Your task to perform on an android device: visit the assistant section in the google photos Image 0: 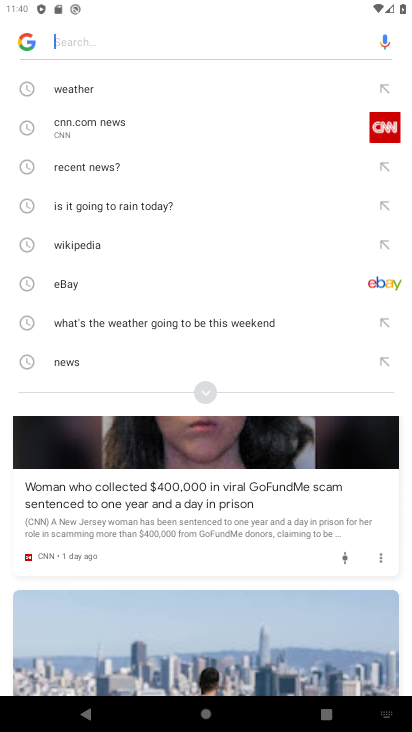
Step 0: press home button
Your task to perform on an android device: visit the assistant section in the google photos Image 1: 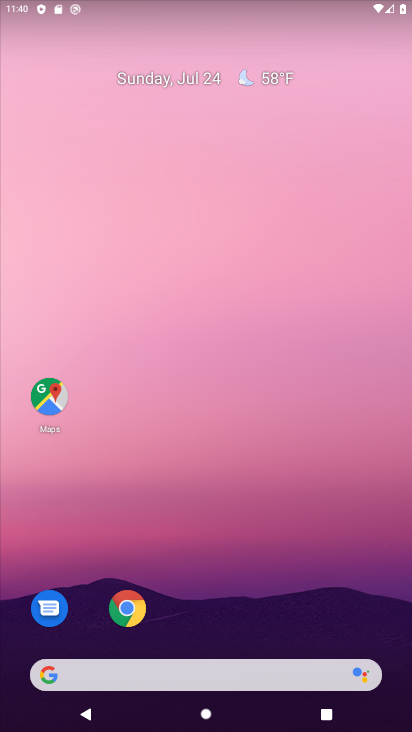
Step 1: drag from (217, 635) to (18, 624)
Your task to perform on an android device: visit the assistant section in the google photos Image 2: 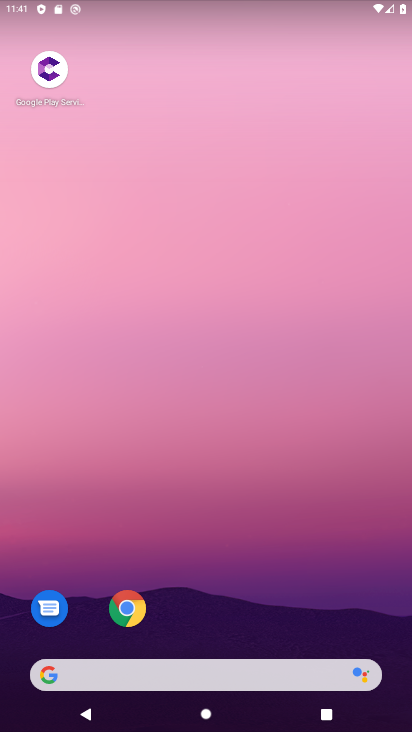
Step 2: drag from (206, 596) to (214, 101)
Your task to perform on an android device: visit the assistant section in the google photos Image 3: 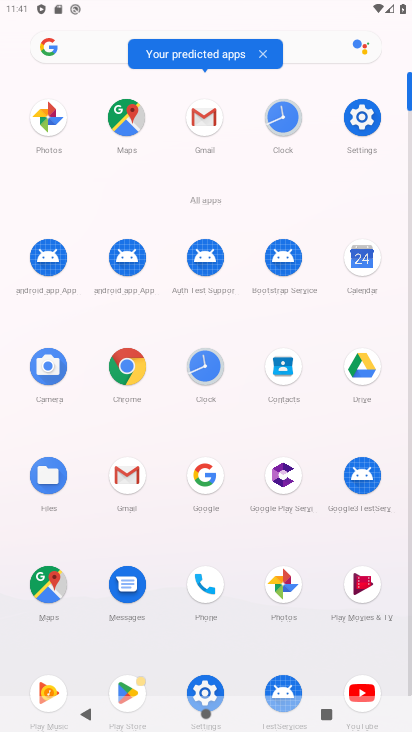
Step 3: click (275, 572)
Your task to perform on an android device: visit the assistant section in the google photos Image 4: 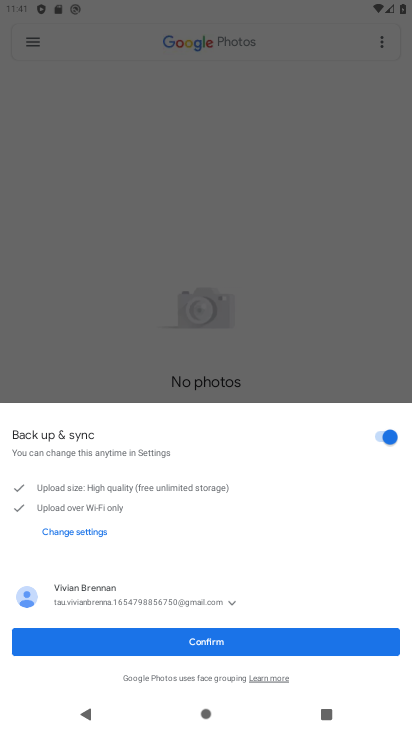
Step 4: click (218, 634)
Your task to perform on an android device: visit the assistant section in the google photos Image 5: 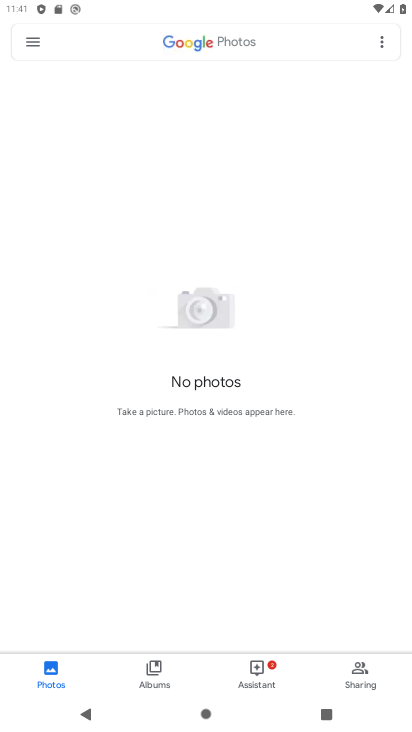
Step 5: click (258, 678)
Your task to perform on an android device: visit the assistant section in the google photos Image 6: 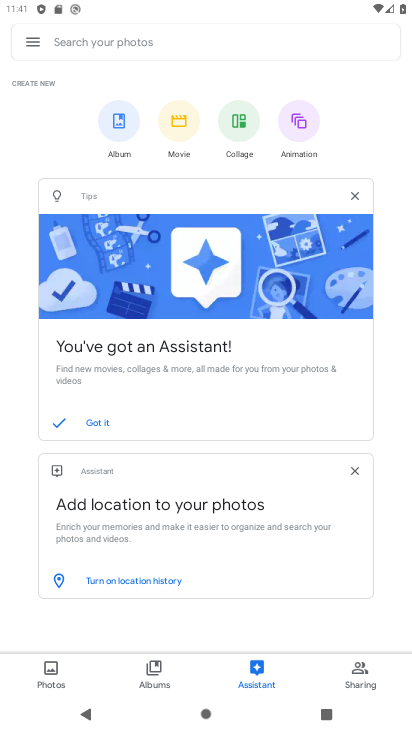
Step 6: task complete